Your task to perform on an android device: change the clock display to digital Image 0: 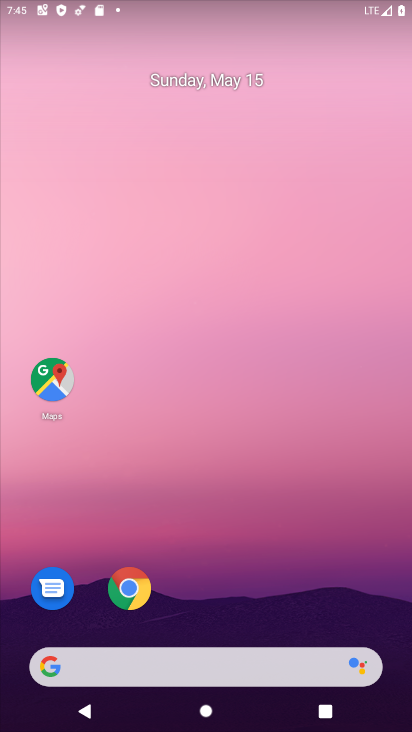
Step 0: drag from (384, 607) to (281, 95)
Your task to perform on an android device: change the clock display to digital Image 1: 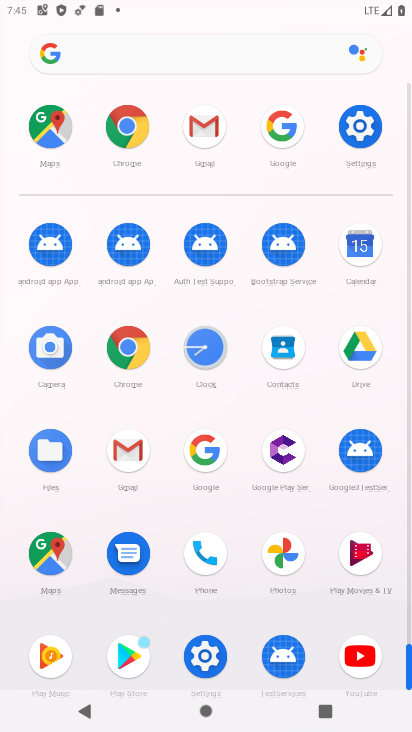
Step 1: click (217, 361)
Your task to perform on an android device: change the clock display to digital Image 2: 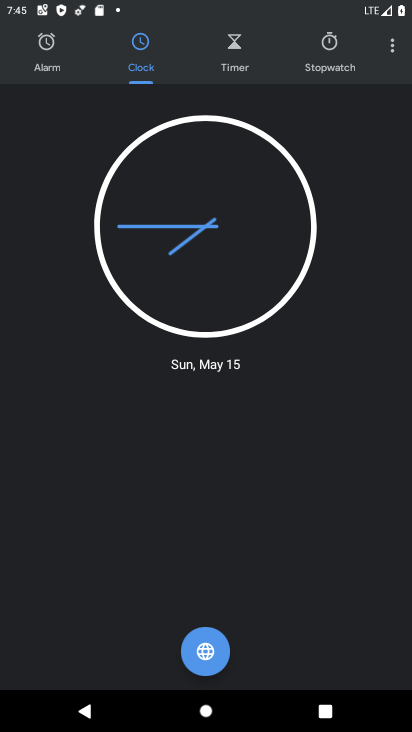
Step 2: click (393, 42)
Your task to perform on an android device: change the clock display to digital Image 3: 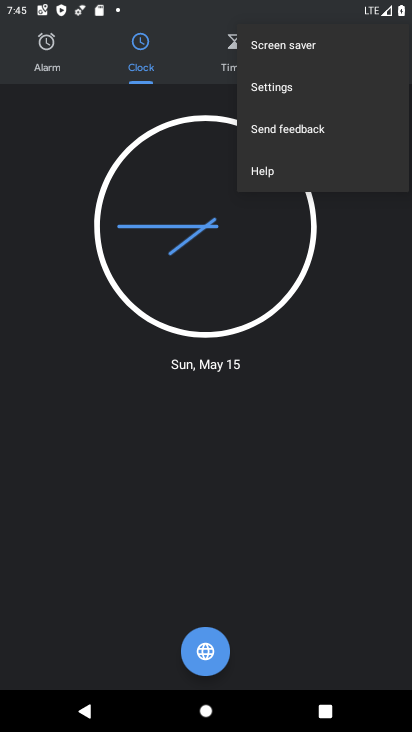
Step 3: click (290, 90)
Your task to perform on an android device: change the clock display to digital Image 4: 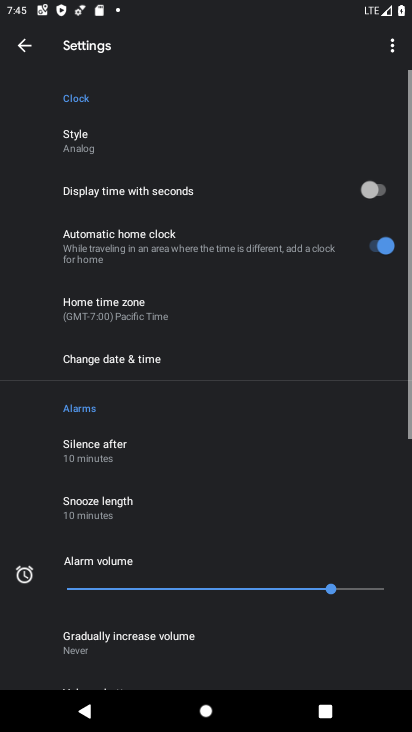
Step 4: click (92, 142)
Your task to perform on an android device: change the clock display to digital Image 5: 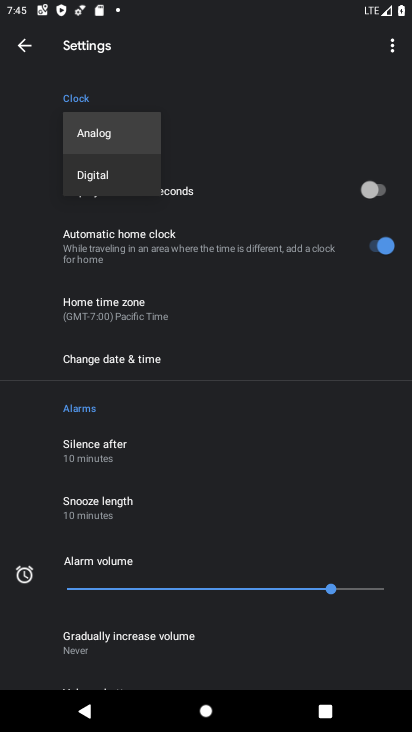
Step 5: click (92, 158)
Your task to perform on an android device: change the clock display to digital Image 6: 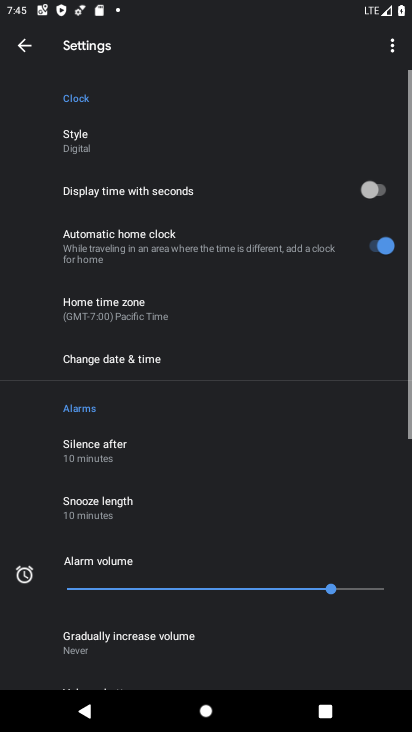
Step 6: task complete